Your task to perform on an android device: Show me popular games on the Play Store Image 0: 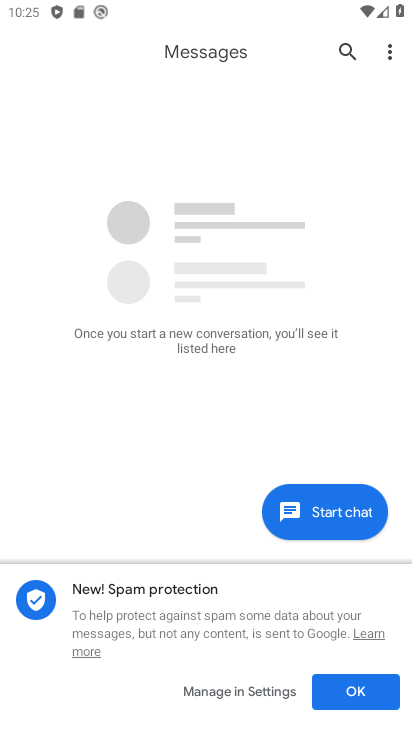
Step 0: press home button
Your task to perform on an android device: Show me popular games on the Play Store Image 1: 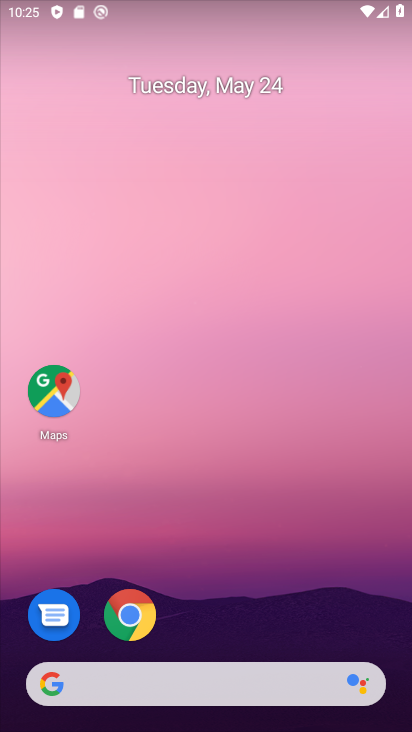
Step 1: drag from (197, 549) to (104, 163)
Your task to perform on an android device: Show me popular games on the Play Store Image 2: 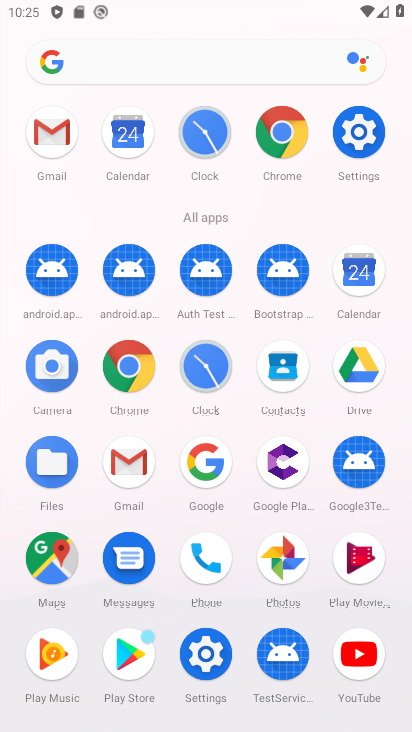
Step 2: click (125, 641)
Your task to perform on an android device: Show me popular games on the Play Store Image 3: 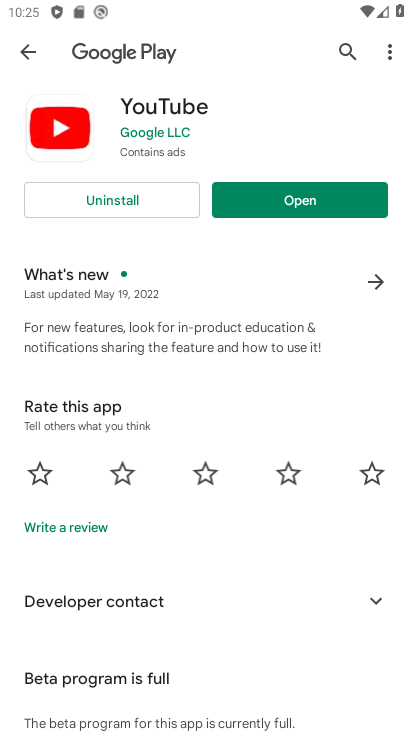
Step 3: press back button
Your task to perform on an android device: Show me popular games on the Play Store Image 4: 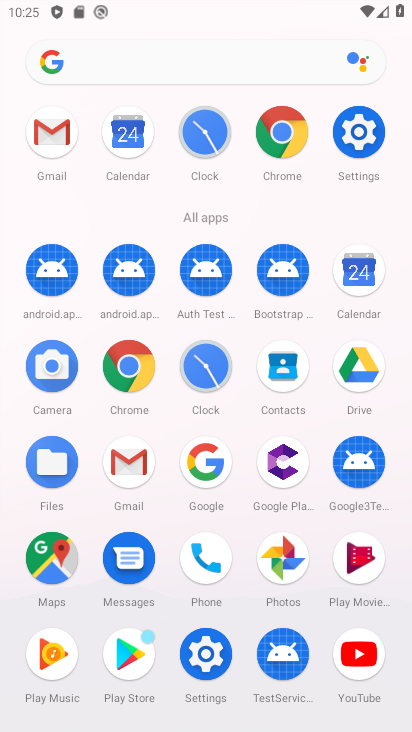
Step 4: click (122, 650)
Your task to perform on an android device: Show me popular games on the Play Store Image 5: 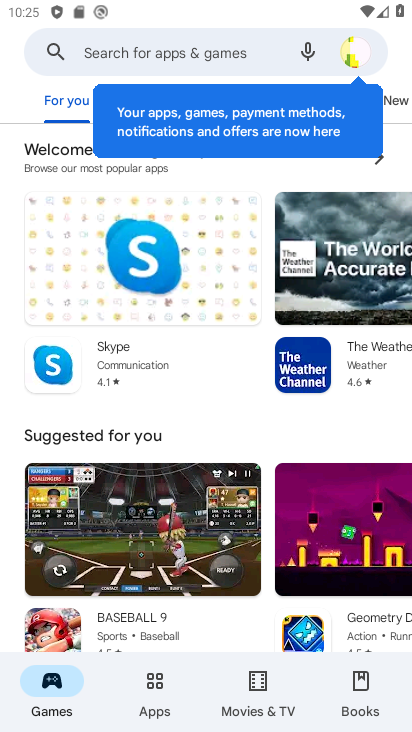
Step 5: click (140, 40)
Your task to perform on an android device: Show me popular games on the Play Store Image 6: 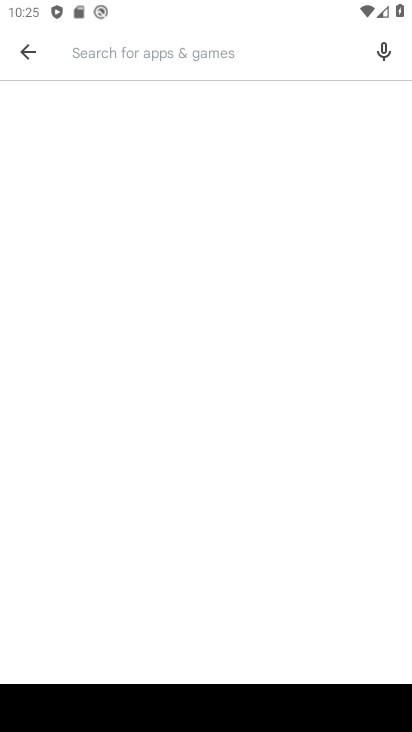
Step 6: type "popular game"
Your task to perform on an android device: Show me popular games on the Play Store Image 7: 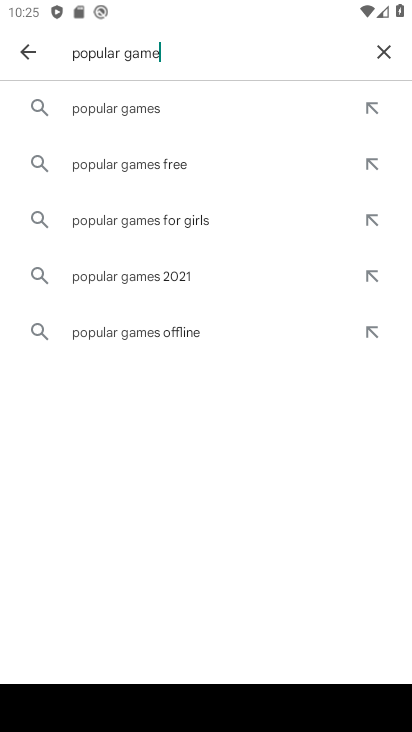
Step 7: click (137, 132)
Your task to perform on an android device: Show me popular games on the Play Store Image 8: 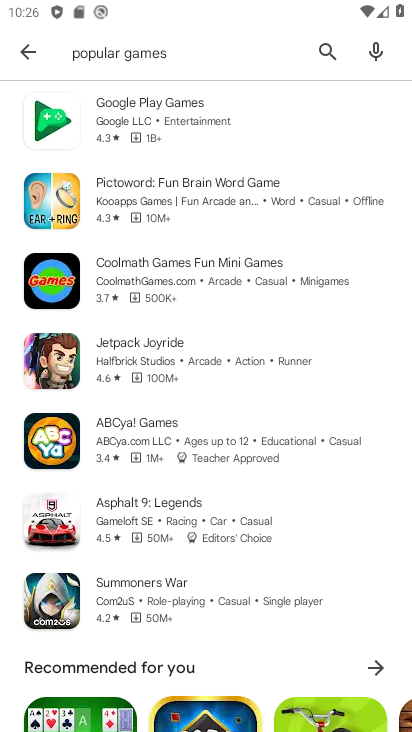
Step 8: task complete